Your task to perform on an android device: Open Google Chrome Image 0: 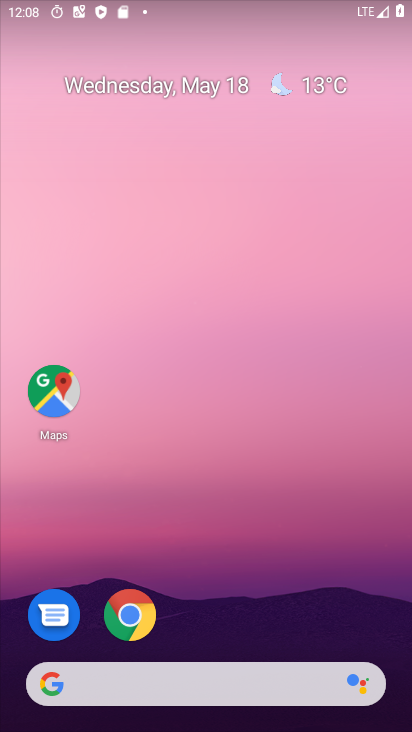
Step 0: press home button
Your task to perform on an android device: Open Google Chrome Image 1: 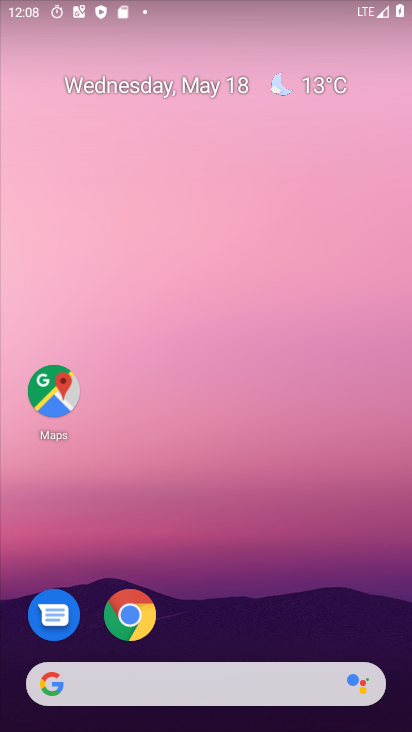
Step 1: click (143, 615)
Your task to perform on an android device: Open Google Chrome Image 2: 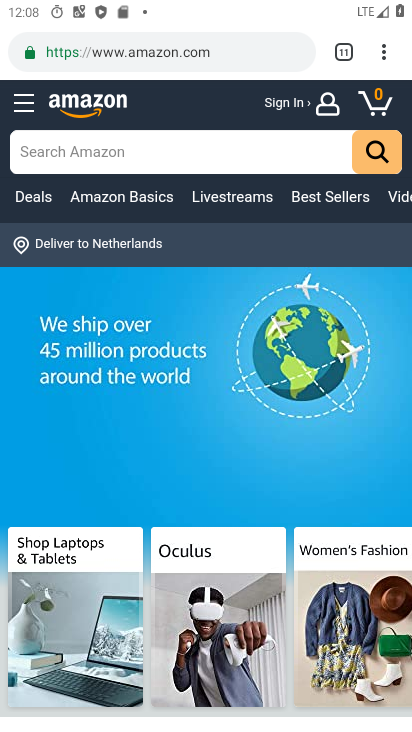
Step 2: task complete